Your task to perform on an android device: Open calendar and show me the first week of next month Image 0: 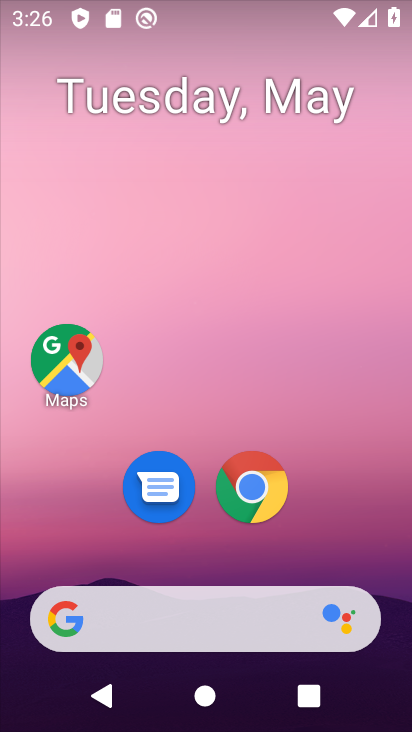
Step 0: drag from (329, 500) to (279, 68)
Your task to perform on an android device: Open calendar and show me the first week of next month Image 1: 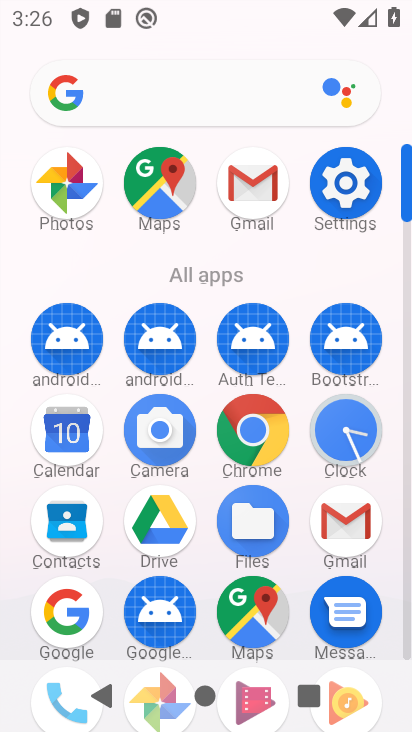
Step 1: drag from (13, 525) to (16, 155)
Your task to perform on an android device: Open calendar and show me the first week of next month Image 2: 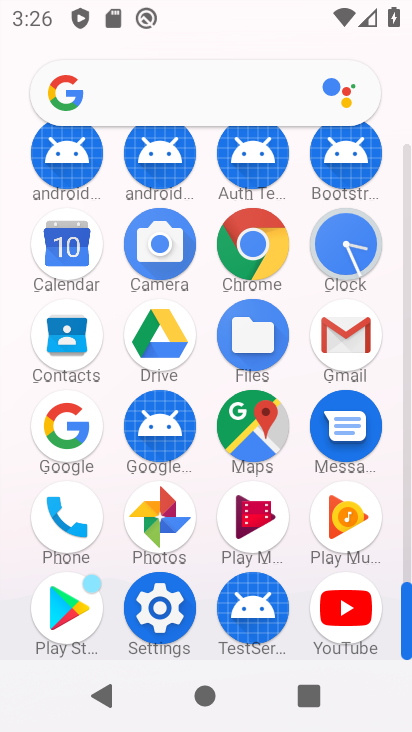
Step 2: drag from (16, 574) to (18, 260)
Your task to perform on an android device: Open calendar and show me the first week of next month Image 3: 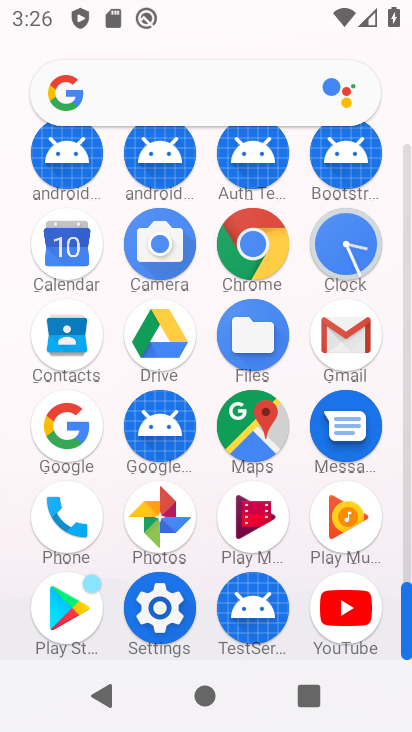
Step 3: drag from (13, 551) to (22, 221)
Your task to perform on an android device: Open calendar and show me the first week of next month Image 4: 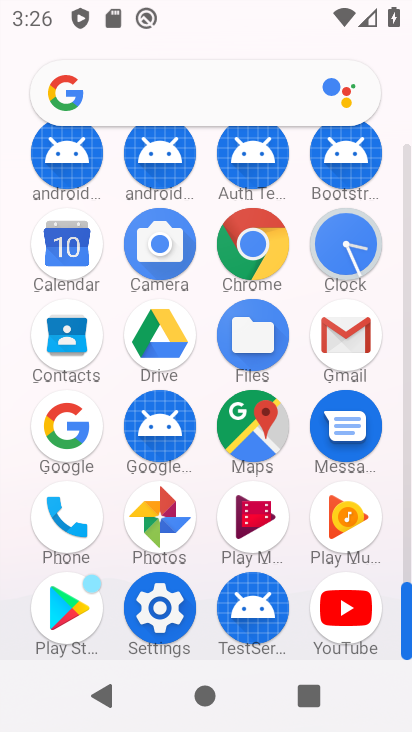
Step 4: click (67, 242)
Your task to perform on an android device: Open calendar and show me the first week of next month Image 5: 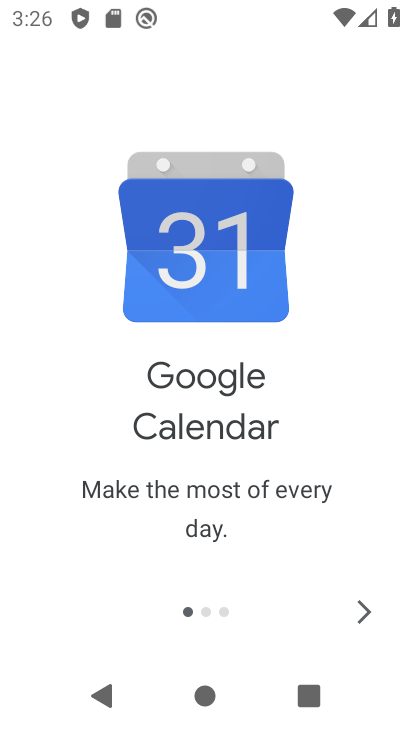
Step 5: click (362, 616)
Your task to perform on an android device: Open calendar and show me the first week of next month Image 6: 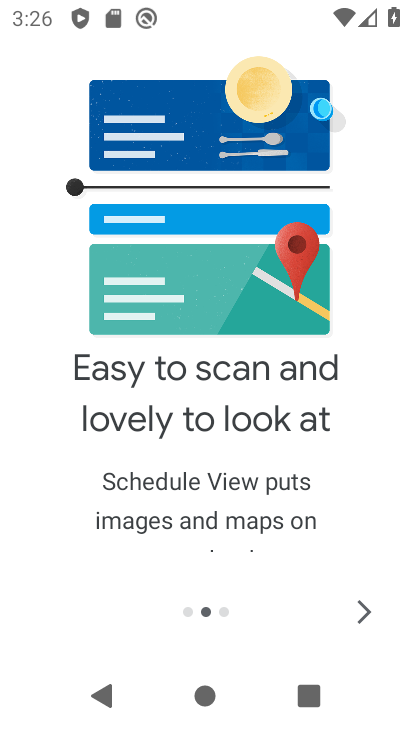
Step 6: click (362, 616)
Your task to perform on an android device: Open calendar and show me the first week of next month Image 7: 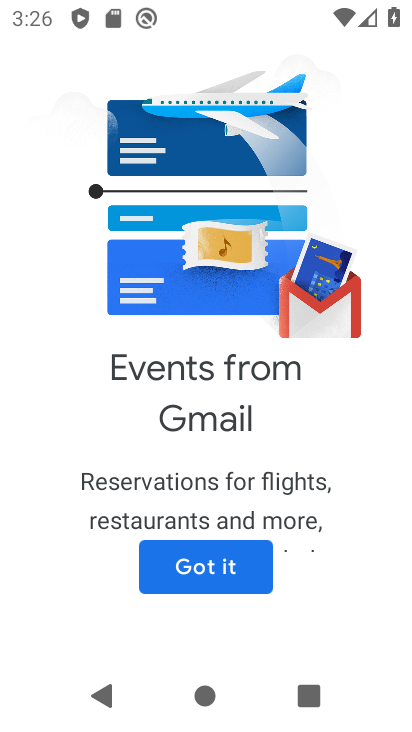
Step 7: click (214, 535)
Your task to perform on an android device: Open calendar and show me the first week of next month Image 8: 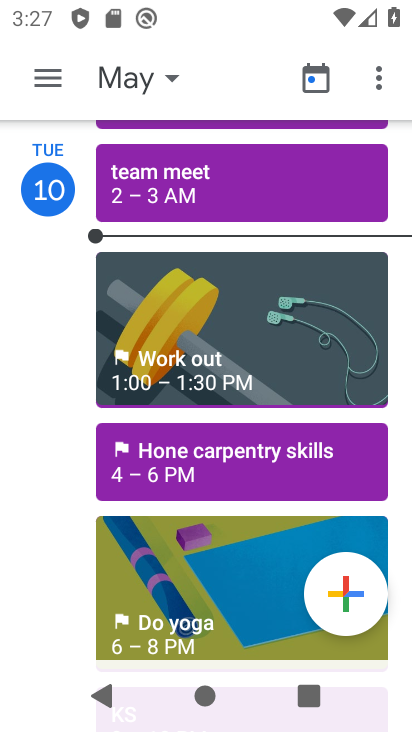
Step 8: click (128, 75)
Your task to perform on an android device: Open calendar and show me the first week of next month Image 9: 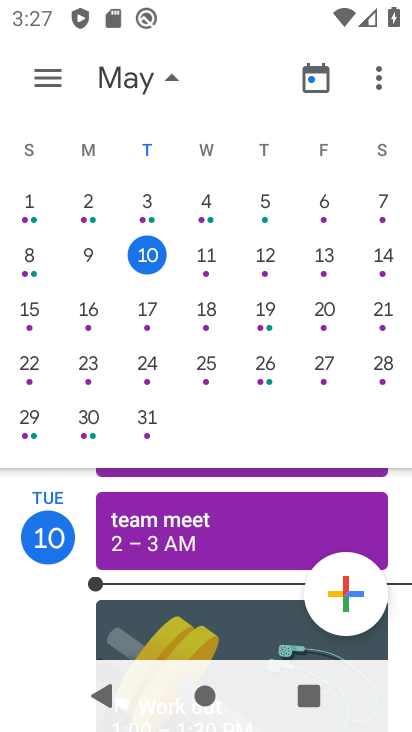
Step 9: drag from (383, 309) to (2, 279)
Your task to perform on an android device: Open calendar and show me the first week of next month Image 10: 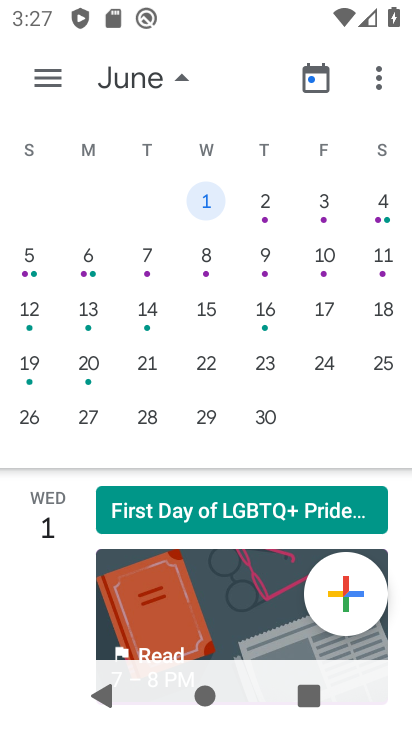
Step 10: click (208, 197)
Your task to perform on an android device: Open calendar and show me the first week of next month Image 11: 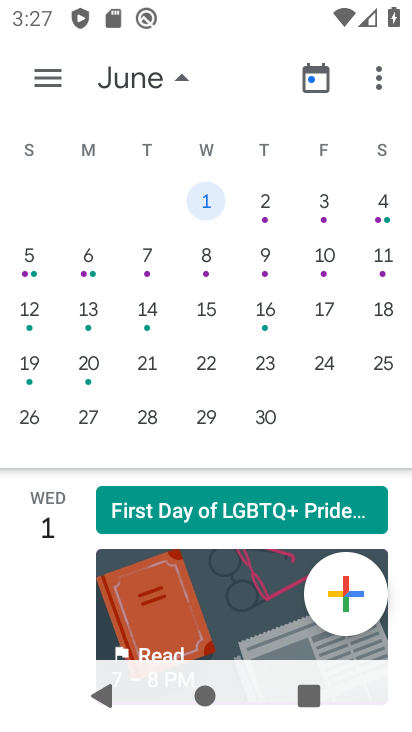
Step 11: click (45, 84)
Your task to perform on an android device: Open calendar and show me the first week of next month Image 12: 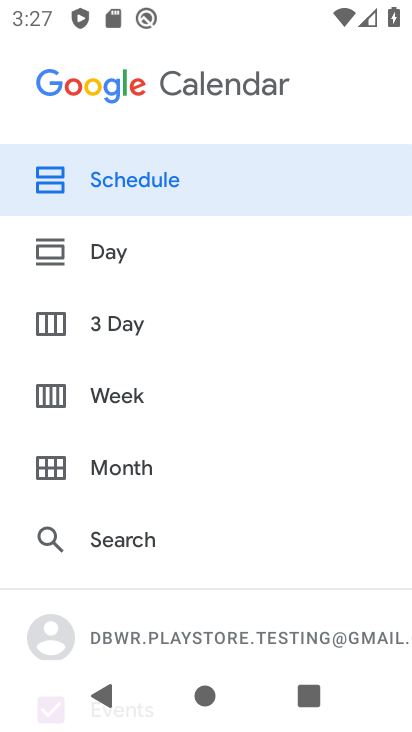
Step 12: click (134, 386)
Your task to perform on an android device: Open calendar and show me the first week of next month Image 13: 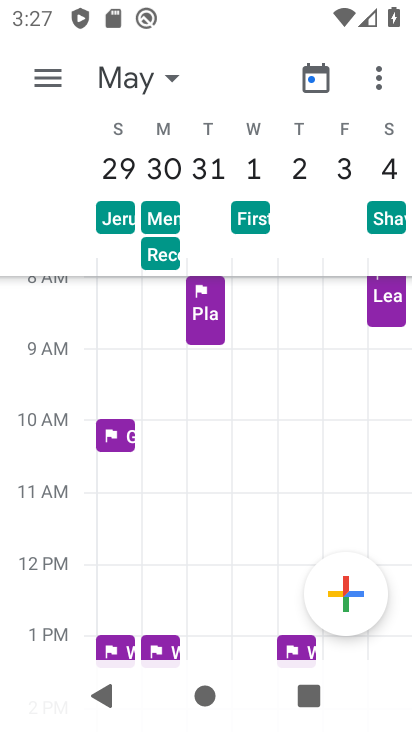
Step 13: task complete